Your task to perform on an android device: Do I have any events tomorrow? Image 0: 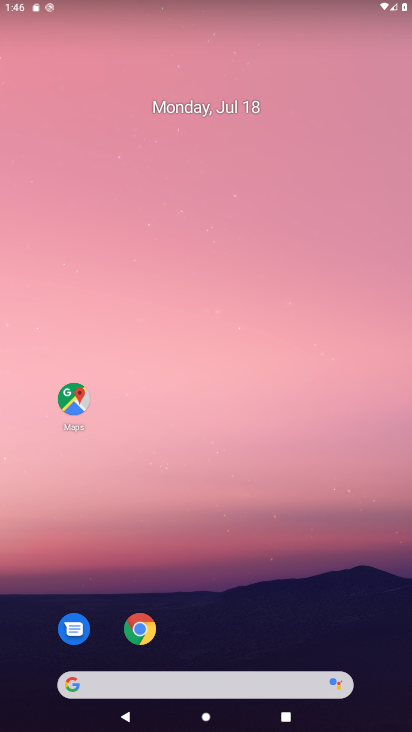
Step 0: drag from (190, 642) to (188, 83)
Your task to perform on an android device: Do I have any events tomorrow? Image 1: 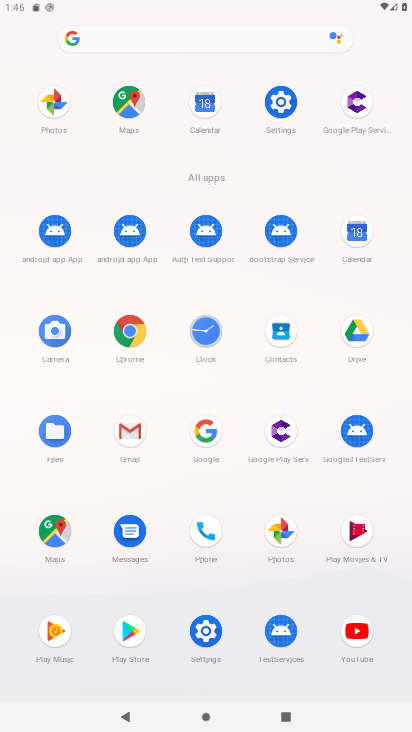
Step 1: click (359, 239)
Your task to perform on an android device: Do I have any events tomorrow? Image 2: 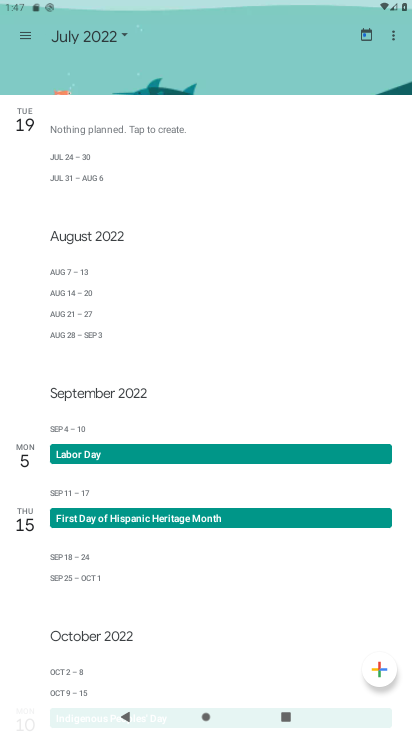
Step 2: task complete